Your task to perform on an android device: toggle data saver in the chrome app Image 0: 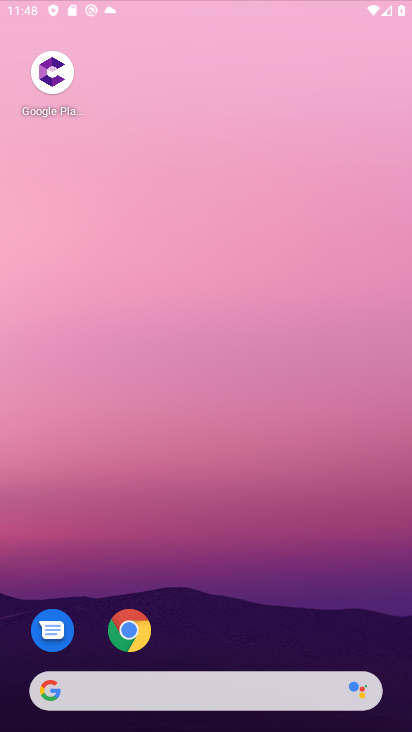
Step 0: click (200, 264)
Your task to perform on an android device: toggle data saver in the chrome app Image 1: 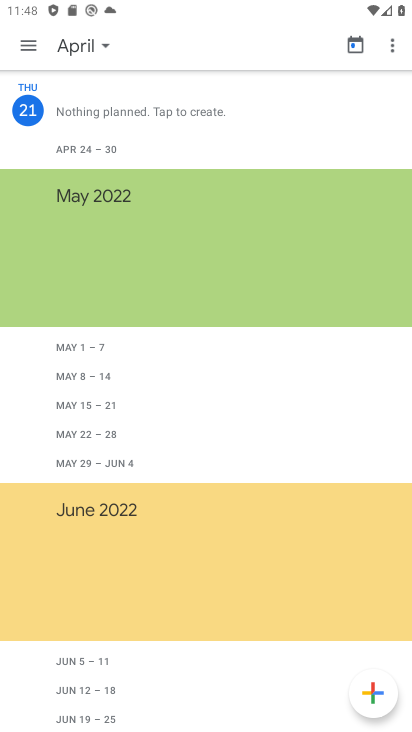
Step 1: click (34, 43)
Your task to perform on an android device: toggle data saver in the chrome app Image 2: 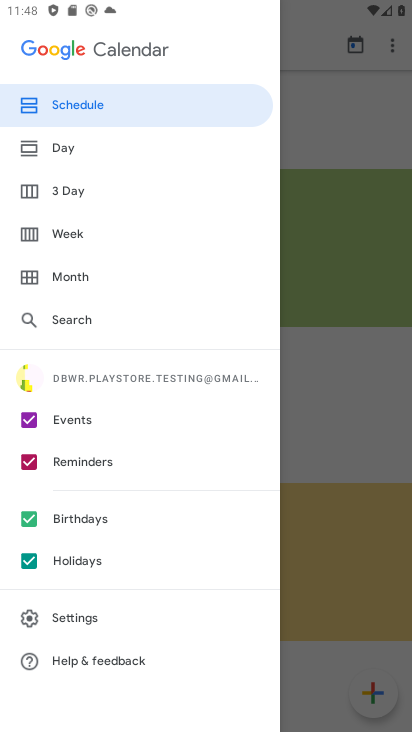
Step 2: click (77, 101)
Your task to perform on an android device: toggle data saver in the chrome app Image 3: 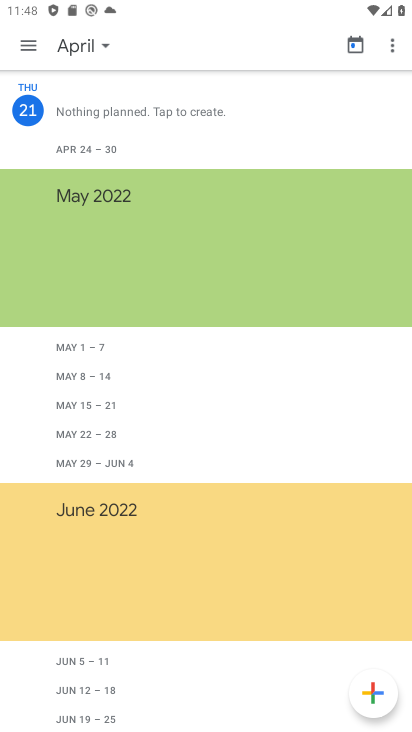
Step 3: click (95, 143)
Your task to perform on an android device: toggle data saver in the chrome app Image 4: 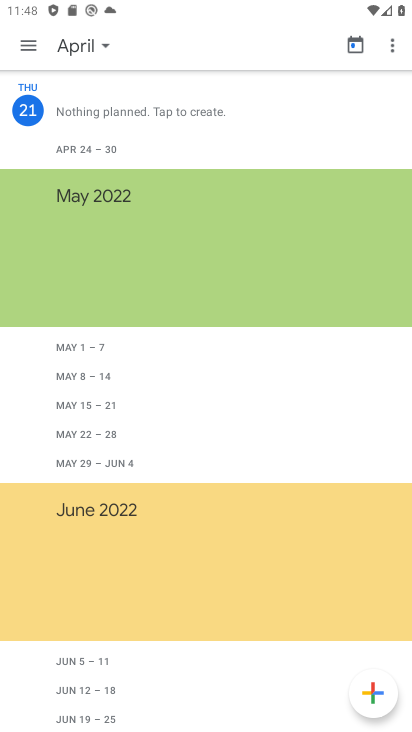
Step 4: click (98, 116)
Your task to perform on an android device: toggle data saver in the chrome app Image 5: 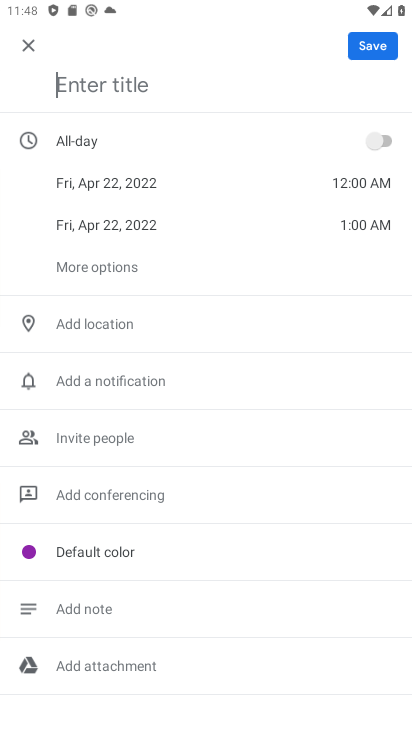
Step 5: task complete